Your task to perform on an android device: turn off airplane mode Image 0: 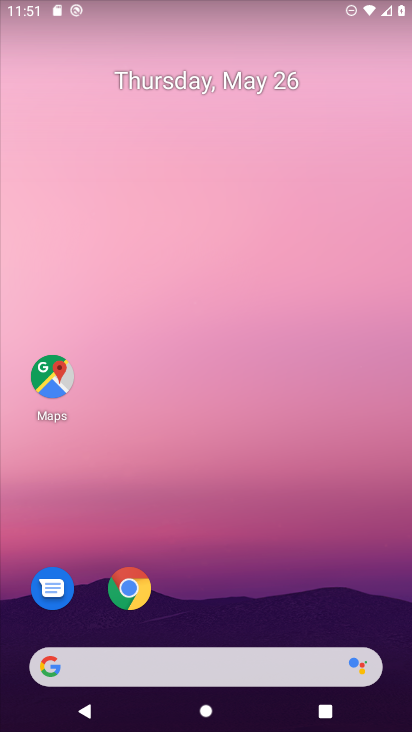
Step 0: drag from (387, 605) to (348, 22)
Your task to perform on an android device: turn off airplane mode Image 1: 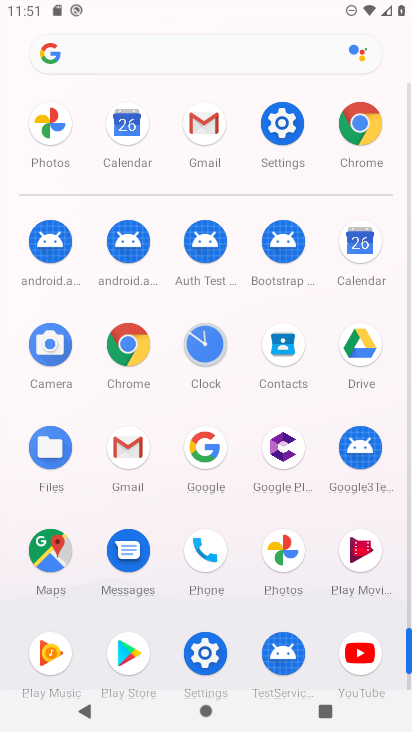
Step 1: click (205, 655)
Your task to perform on an android device: turn off airplane mode Image 2: 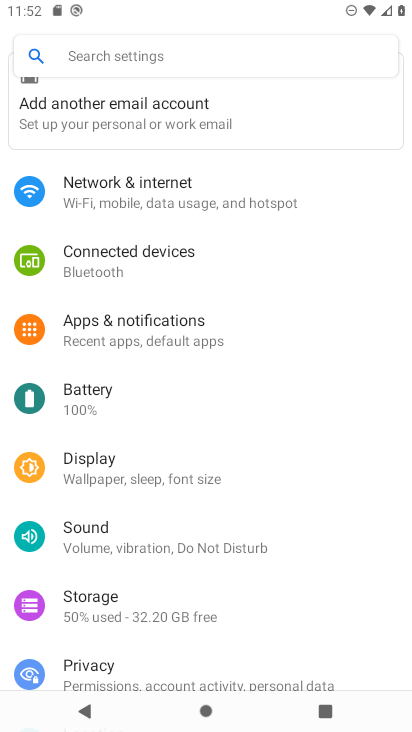
Step 2: click (139, 178)
Your task to perform on an android device: turn off airplane mode Image 3: 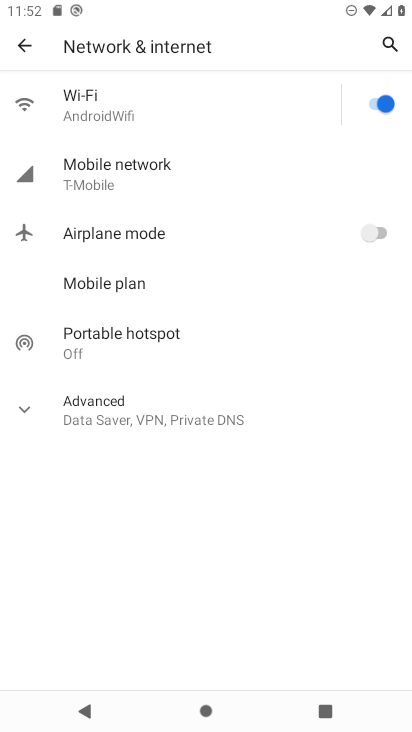
Step 3: task complete